Your task to perform on an android device: turn off location history Image 0: 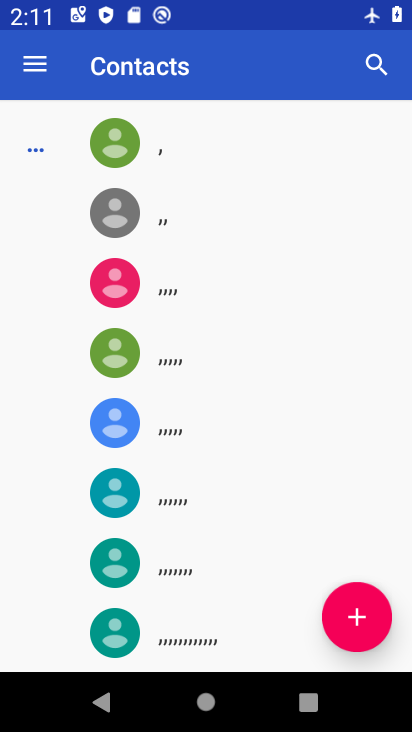
Step 0: press home button
Your task to perform on an android device: turn off location history Image 1: 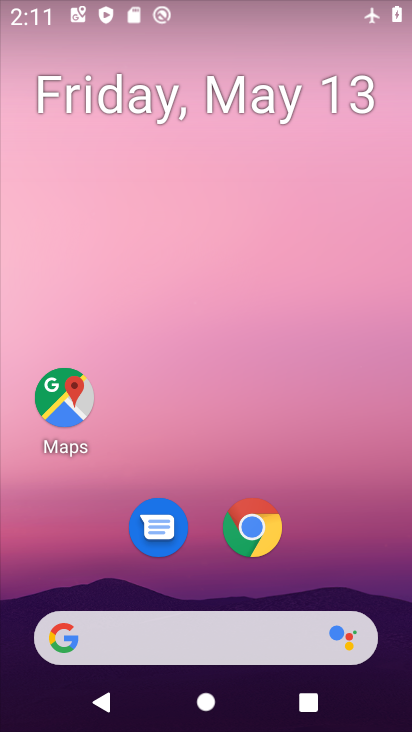
Step 1: drag from (150, 577) to (237, 57)
Your task to perform on an android device: turn off location history Image 2: 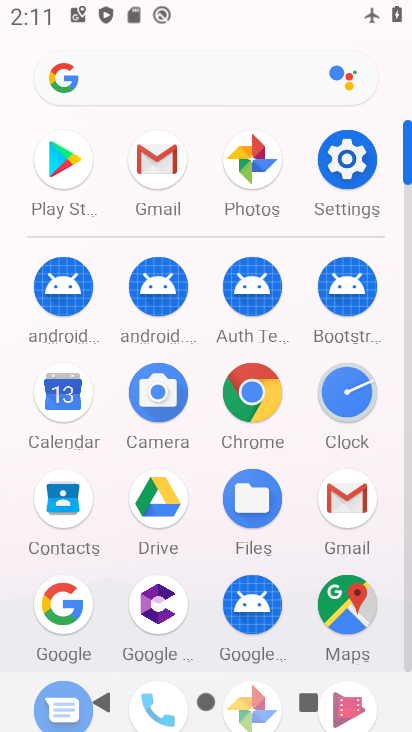
Step 2: click (347, 154)
Your task to perform on an android device: turn off location history Image 3: 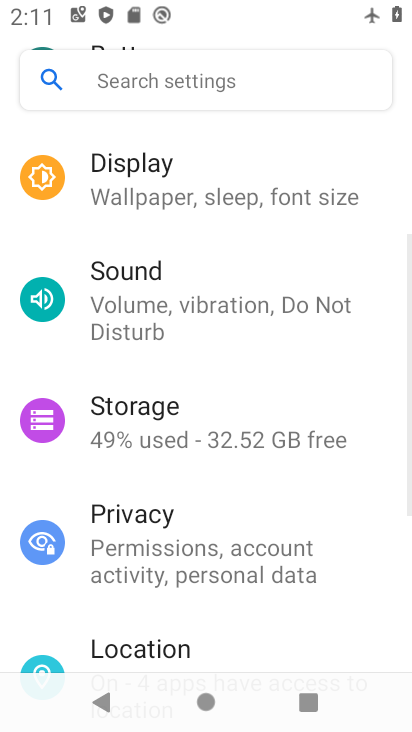
Step 3: click (81, 645)
Your task to perform on an android device: turn off location history Image 4: 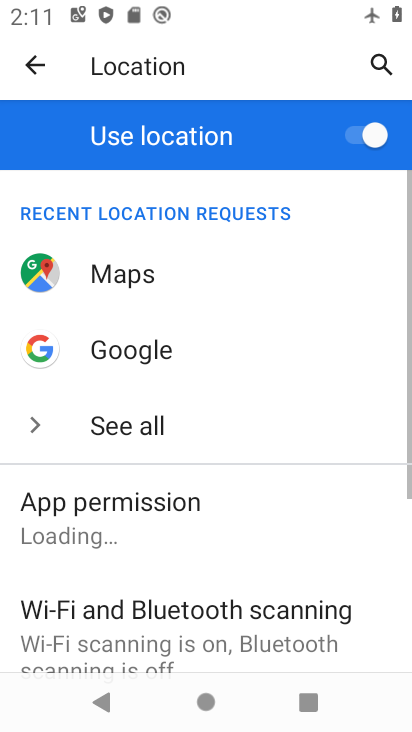
Step 4: drag from (81, 645) to (147, 228)
Your task to perform on an android device: turn off location history Image 5: 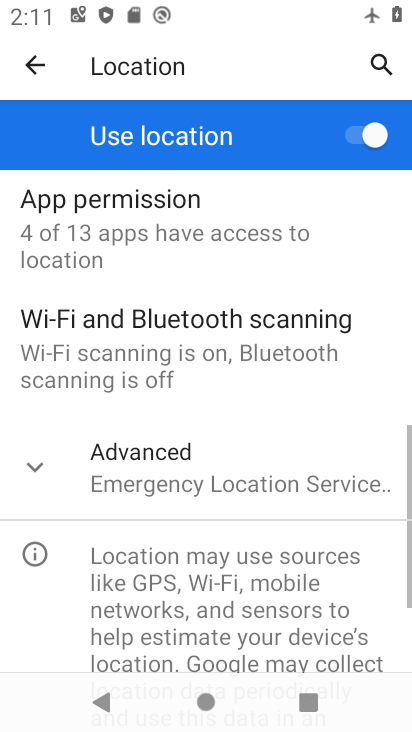
Step 5: click (138, 484)
Your task to perform on an android device: turn off location history Image 6: 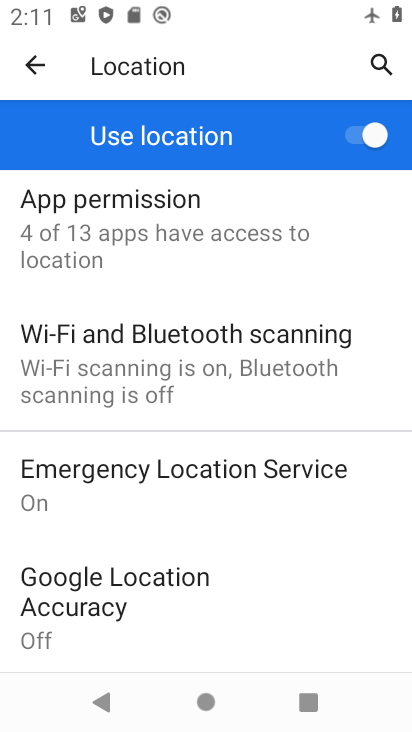
Step 6: drag from (182, 633) to (275, 7)
Your task to perform on an android device: turn off location history Image 7: 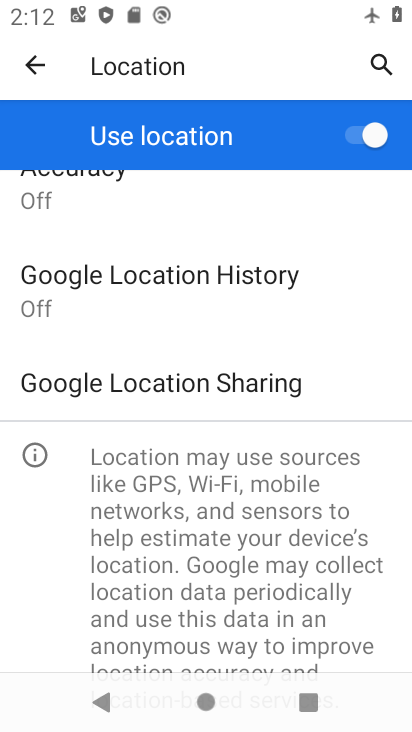
Step 7: click (263, 276)
Your task to perform on an android device: turn off location history Image 8: 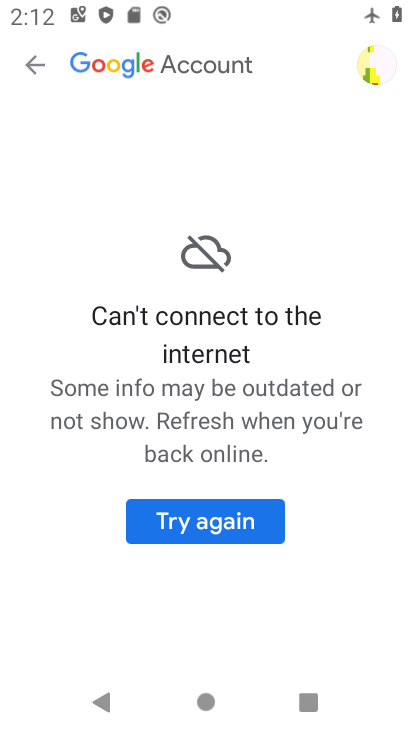
Step 8: click (54, 72)
Your task to perform on an android device: turn off location history Image 9: 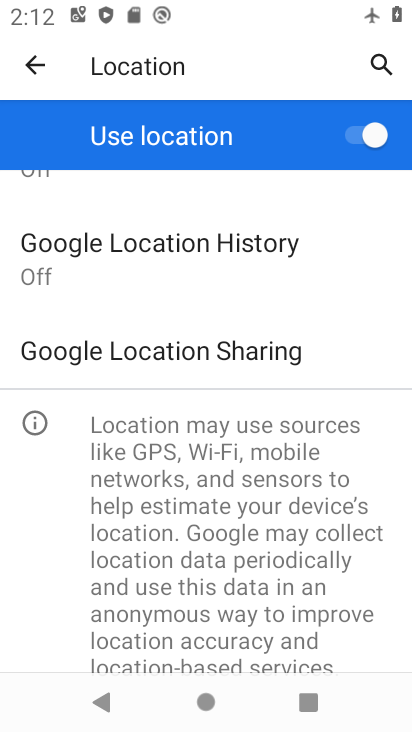
Step 9: task complete